Your task to perform on an android device: turn on data saver in the chrome app Image 0: 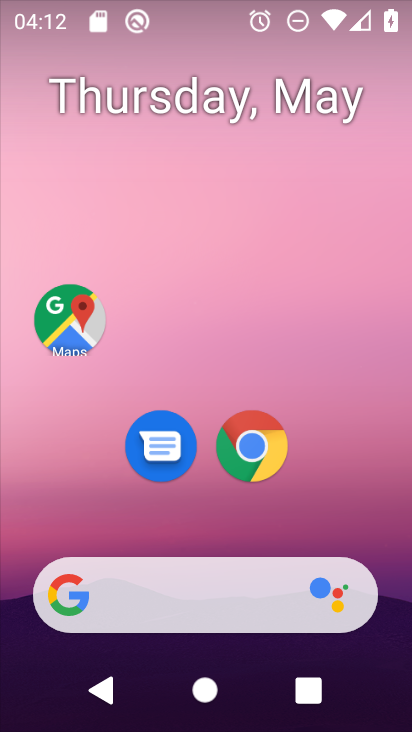
Step 0: click (251, 452)
Your task to perform on an android device: turn on data saver in the chrome app Image 1: 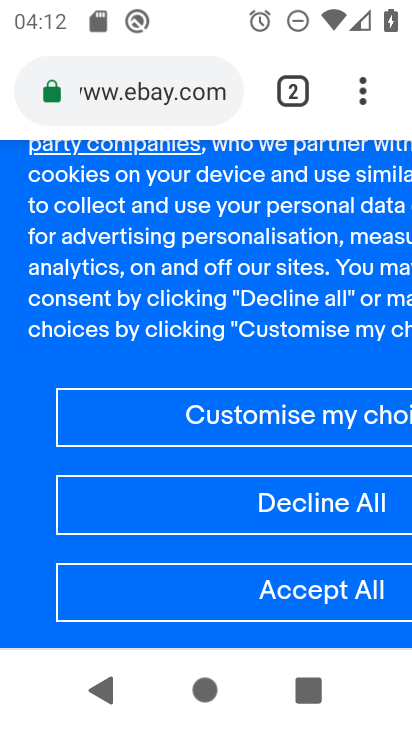
Step 1: click (360, 95)
Your task to perform on an android device: turn on data saver in the chrome app Image 2: 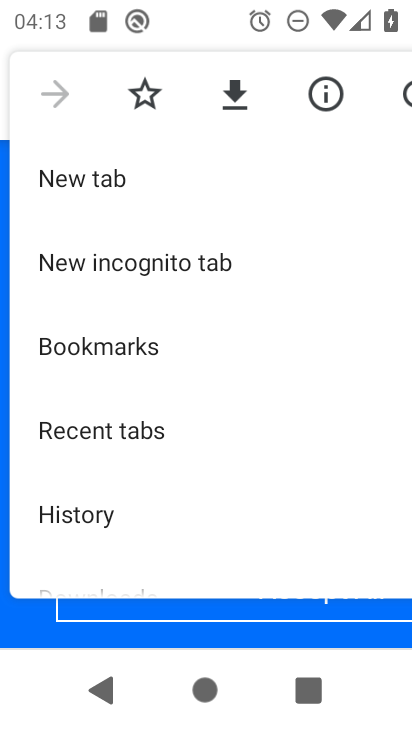
Step 2: drag from (200, 451) to (193, 75)
Your task to perform on an android device: turn on data saver in the chrome app Image 3: 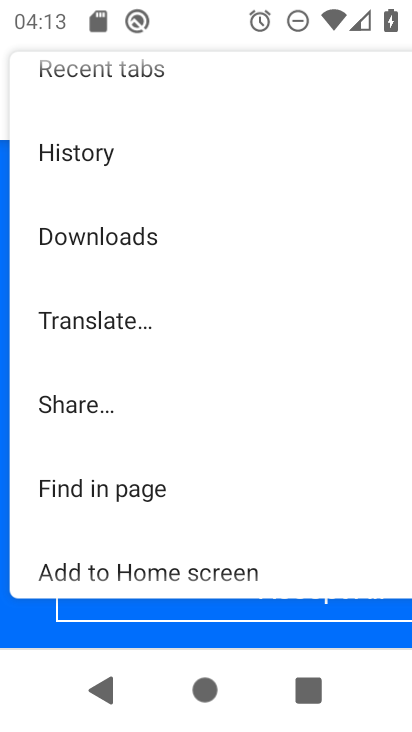
Step 3: drag from (214, 510) to (212, 169)
Your task to perform on an android device: turn on data saver in the chrome app Image 4: 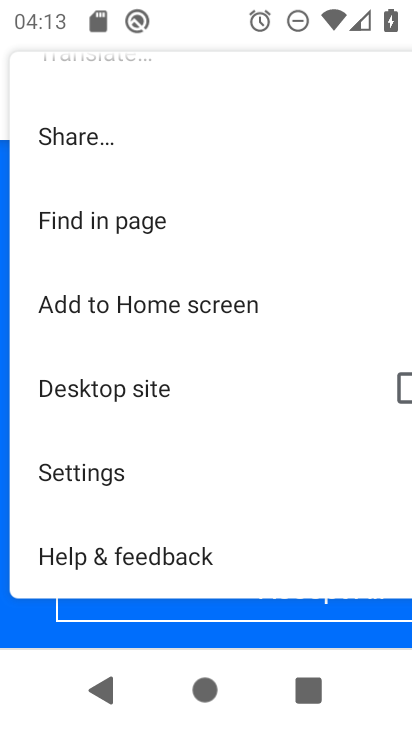
Step 4: click (88, 475)
Your task to perform on an android device: turn on data saver in the chrome app Image 5: 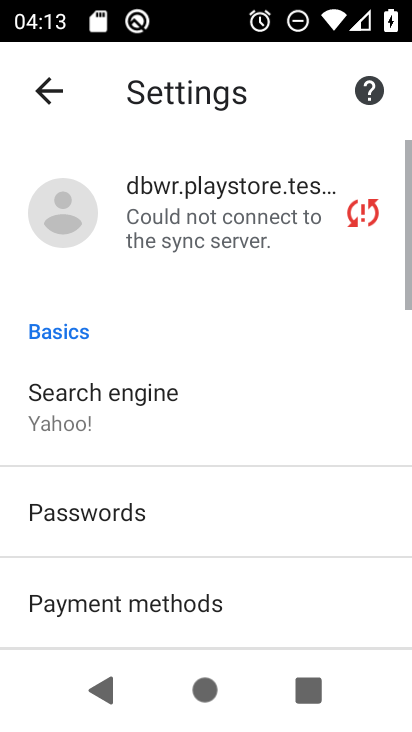
Step 5: drag from (207, 572) to (187, 20)
Your task to perform on an android device: turn on data saver in the chrome app Image 6: 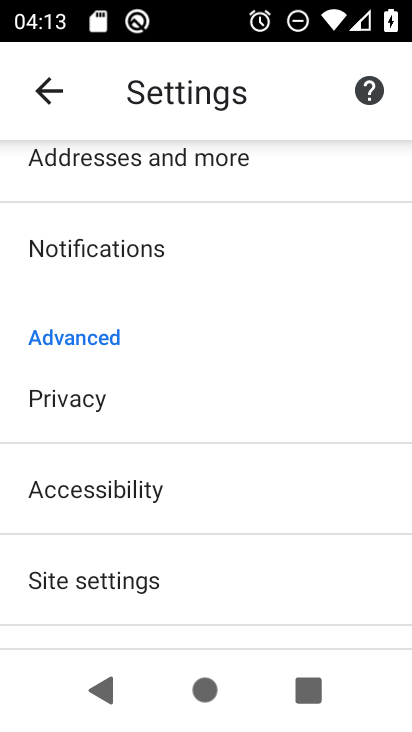
Step 6: drag from (205, 553) to (194, 355)
Your task to perform on an android device: turn on data saver in the chrome app Image 7: 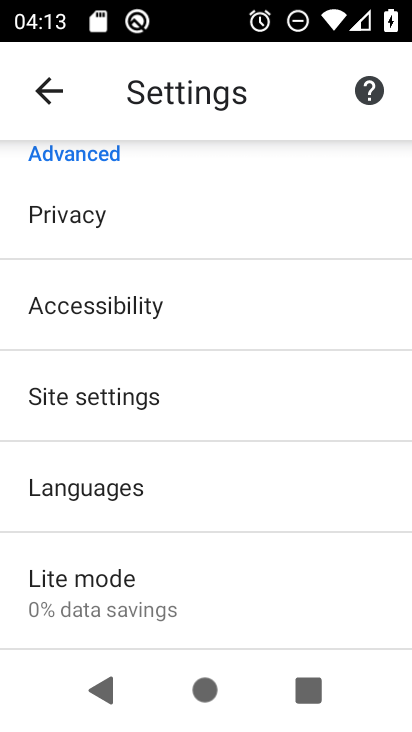
Step 7: click (77, 587)
Your task to perform on an android device: turn on data saver in the chrome app Image 8: 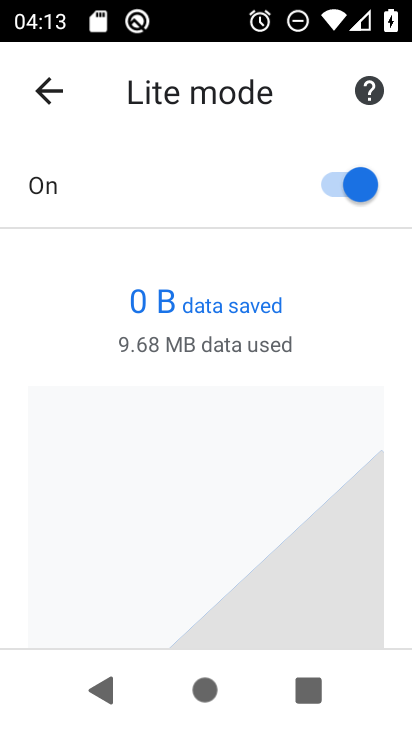
Step 8: task complete